Your task to perform on an android device: Open Google Maps and go to "Timeline" Image 0: 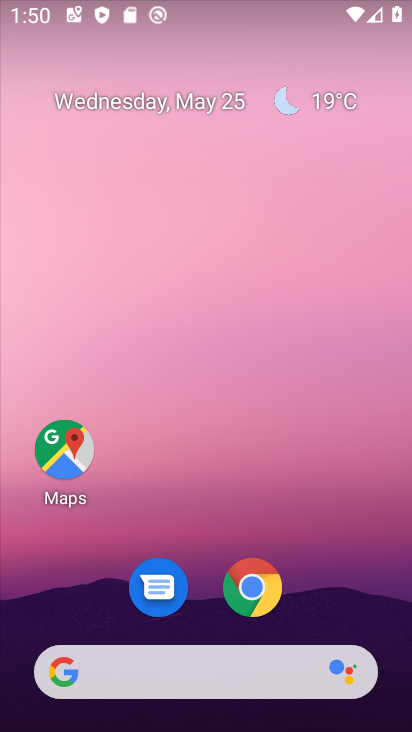
Step 0: click (68, 457)
Your task to perform on an android device: Open Google Maps and go to "Timeline" Image 1: 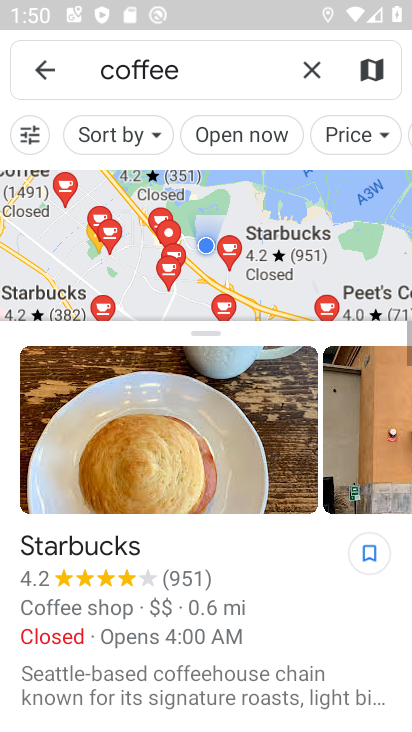
Step 1: click (309, 70)
Your task to perform on an android device: Open Google Maps and go to "Timeline" Image 2: 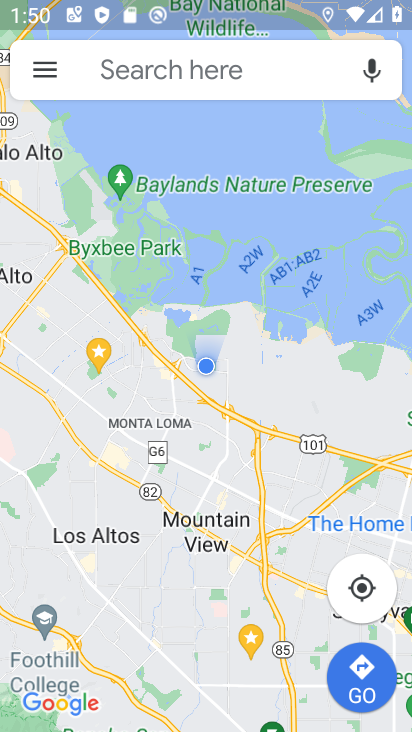
Step 2: click (43, 75)
Your task to perform on an android device: Open Google Maps and go to "Timeline" Image 3: 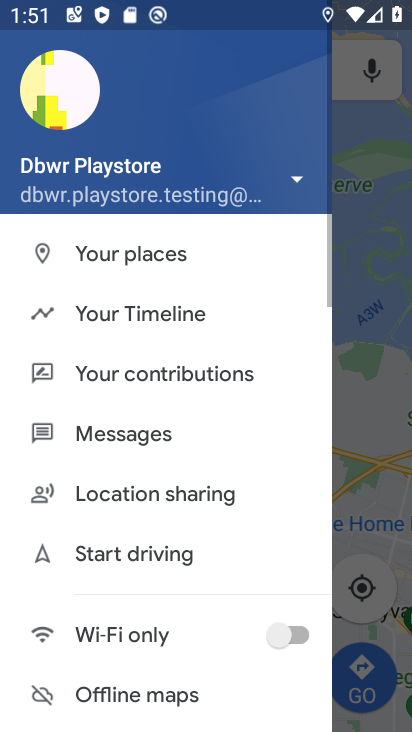
Step 3: click (168, 313)
Your task to perform on an android device: Open Google Maps and go to "Timeline" Image 4: 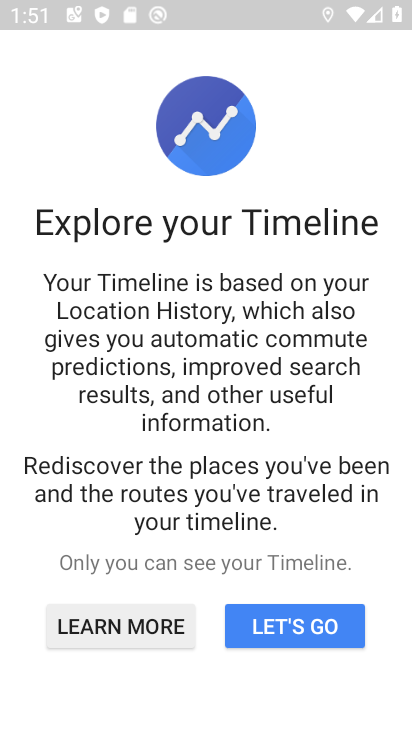
Step 4: drag from (184, 663) to (220, 364)
Your task to perform on an android device: Open Google Maps and go to "Timeline" Image 5: 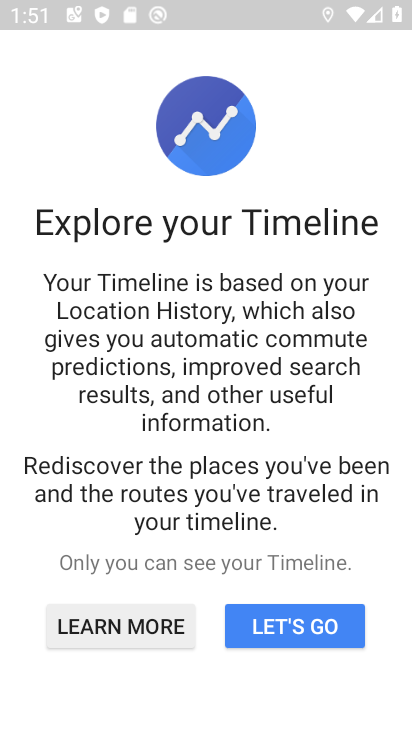
Step 5: drag from (207, 548) to (234, 324)
Your task to perform on an android device: Open Google Maps and go to "Timeline" Image 6: 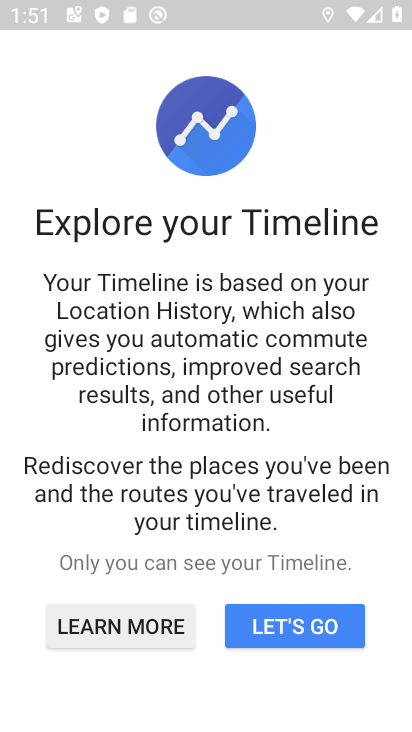
Step 6: click (287, 615)
Your task to perform on an android device: Open Google Maps and go to "Timeline" Image 7: 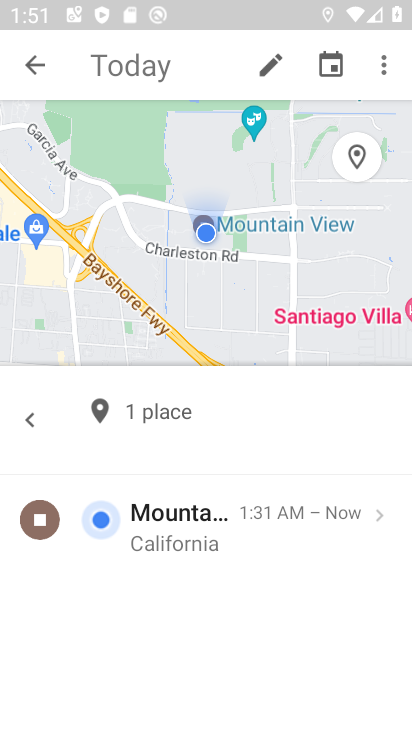
Step 7: task complete